Your task to perform on an android device: open device folders in google photos Image 0: 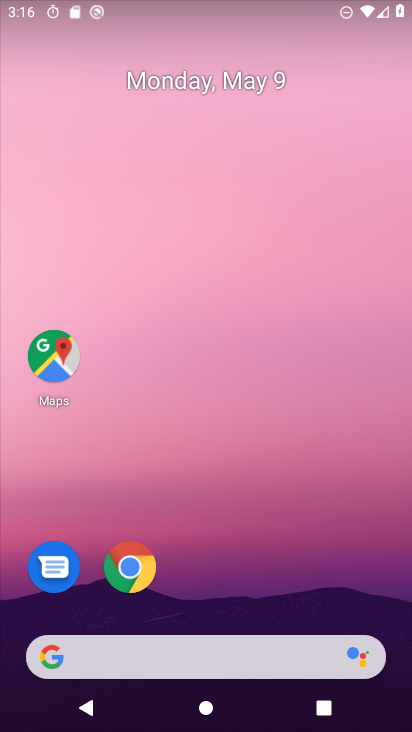
Step 0: drag from (247, 555) to (229, 64)
Your task to perform on an android device: open device folders in google photos Image 1: 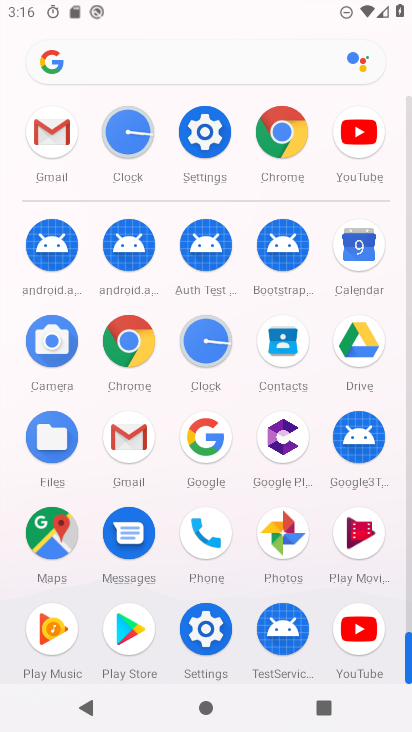
Step 1: click (278, 538)
Your task to perform on an android device: open device folders in google photos Image 2: 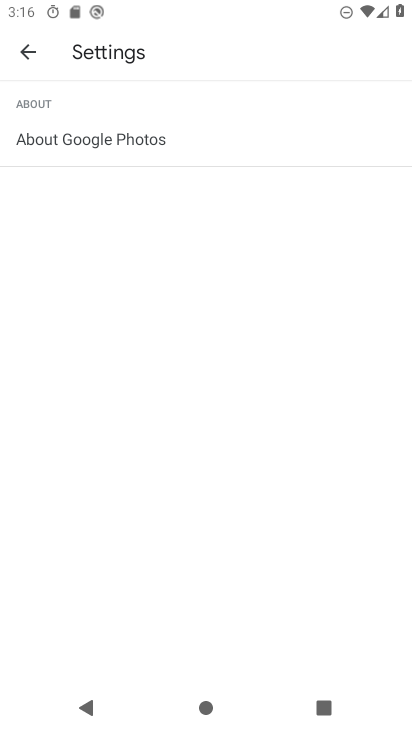
Step 2: click (28, 62)
Your task to perform on an android device: open device folders in google photos Image 3: 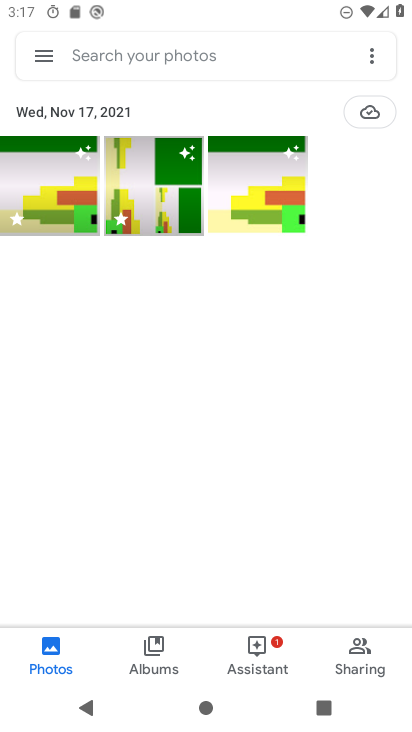
Step 3: click (157, 652)
Your task to perform on an android device: open device folders in google photos Image 4: 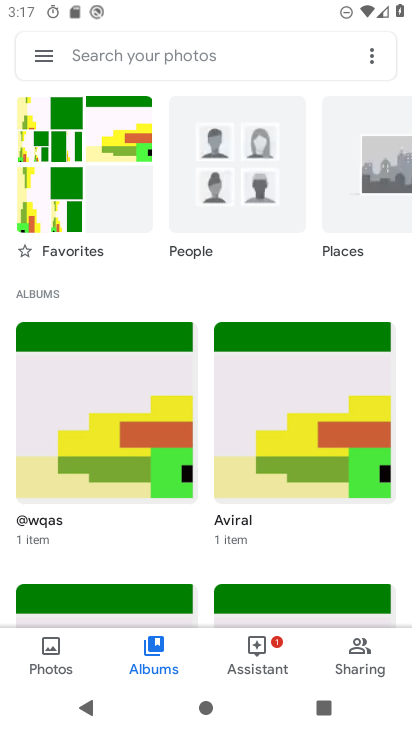
Step 4: click (40, 49)
Your task to perform on an android device: open device folders in google photos Image 5: 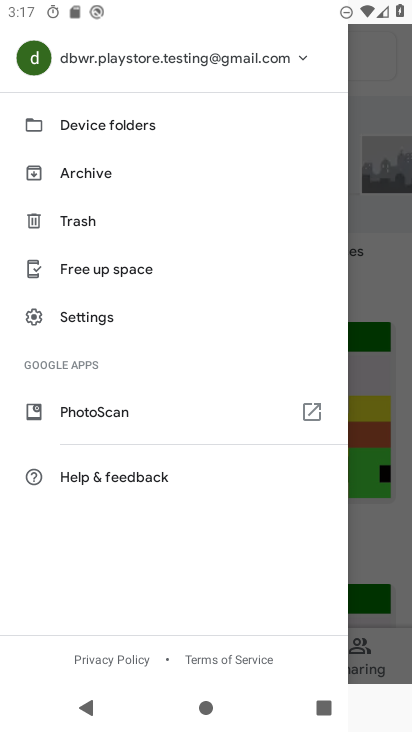
Step 5: click (91, 127)
Your task to perform on an android device: open device folders in google photos Image 6: 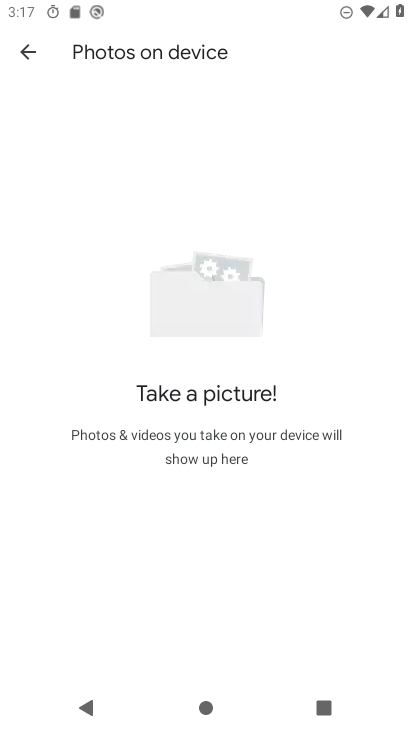
Step 6: task complete